Your task to perform on an android device: Go to Yahoo.com Image 0: 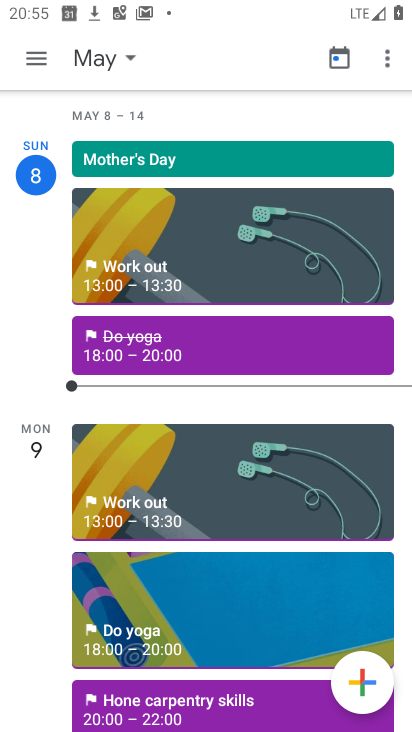
Step 0: press home button
Your task to perform on an android device: Go to Yahoo.com Image 1: 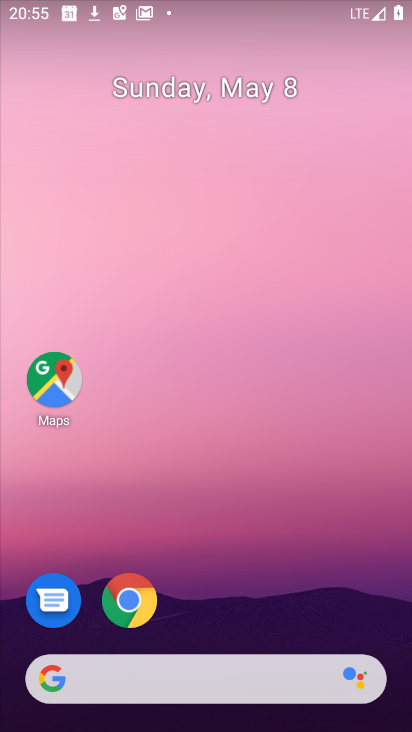
Step 1: drag from (299, 694) to (269, 193)
Your task to perform on an android device: Go to Yahoo.com Image 2: 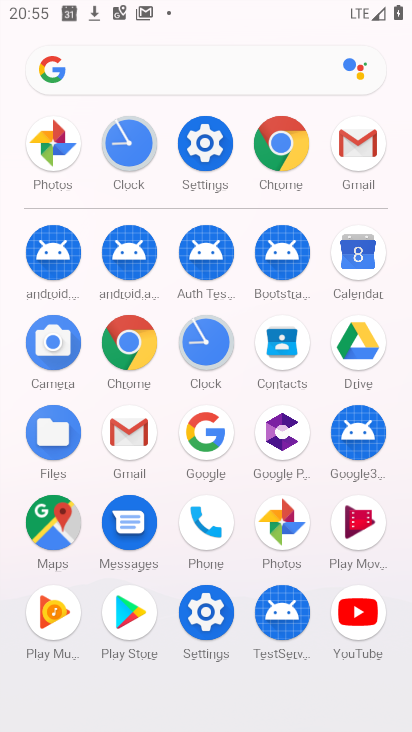
Step 2: click (284, 144)
Your task to perform on an android device: Go to Yahoo.com Image 3: 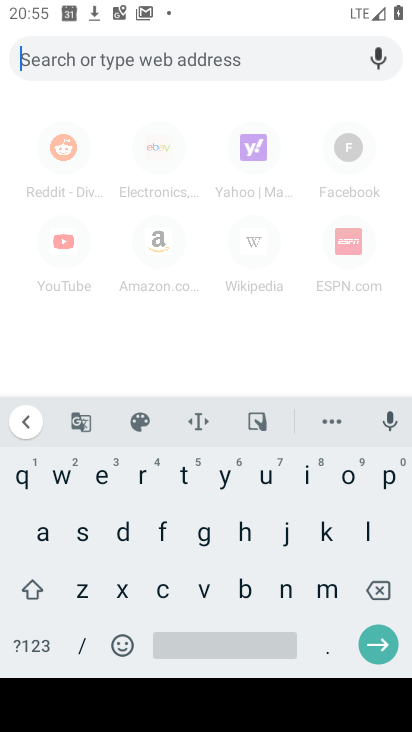
Step 3: click (256, 162)
Your task to perform on an android device: Go to Yahoo.com Image 4: 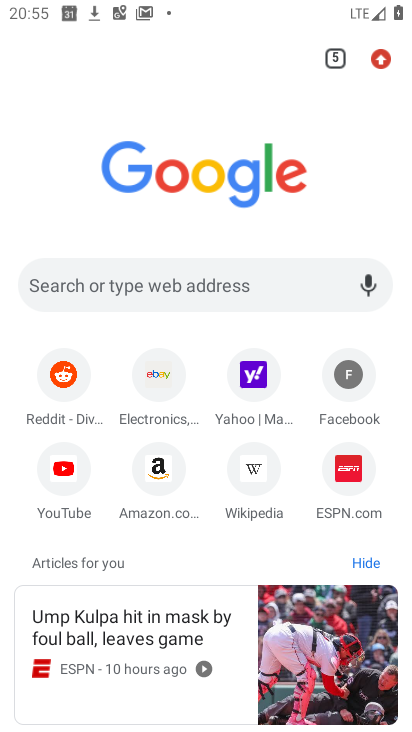
Step 4: click (253, 388)
Your task to perform on an android device: Go to Yahoo.com Image 5: 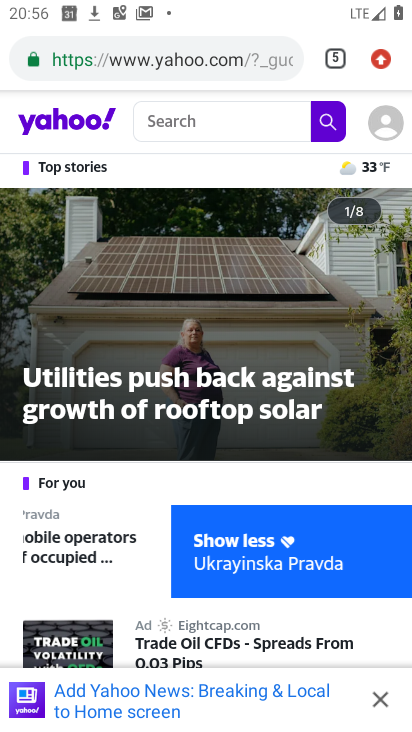
Step 5: task complete